Your task to perform on an android device: Toggle the flashlight Image 0: 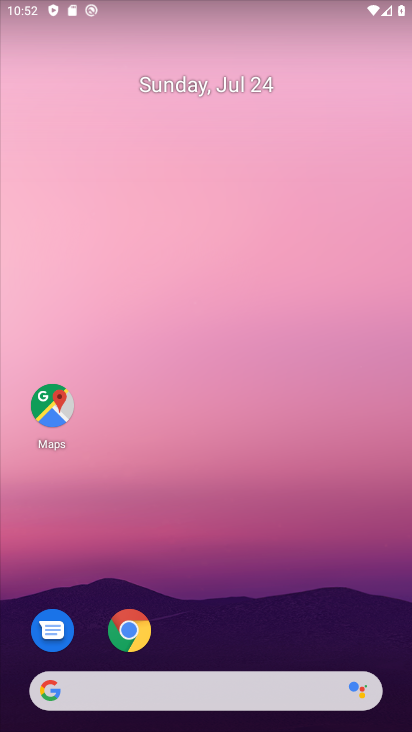
Step 0: drag from (288, 627) to (254, 144)
Your task to perform on an android device: Toggle the flashlight Image 1: 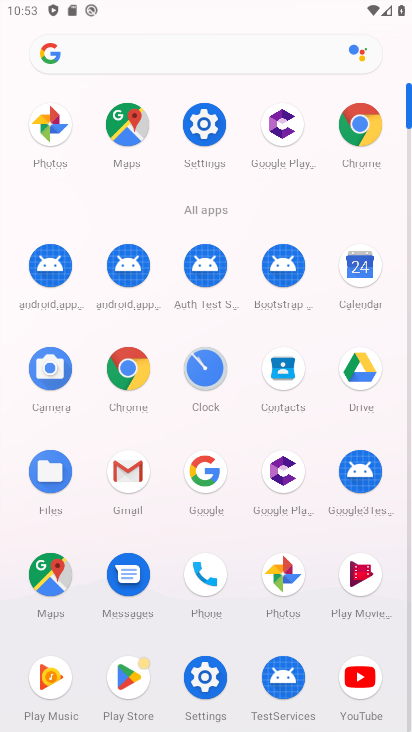
Step 1: click (203, 125)
Your task to perform on an android device: Toggle the flashlight Image 2: 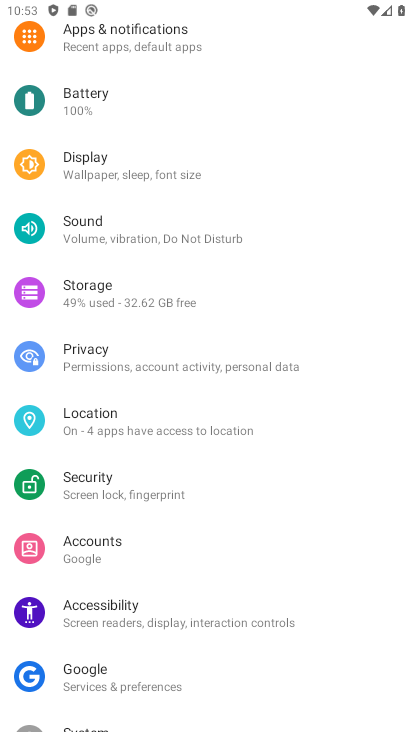
Step 2: task complete